Your task to perform on an android device: read, delete, or share a saved page in the chrome app Image 0: 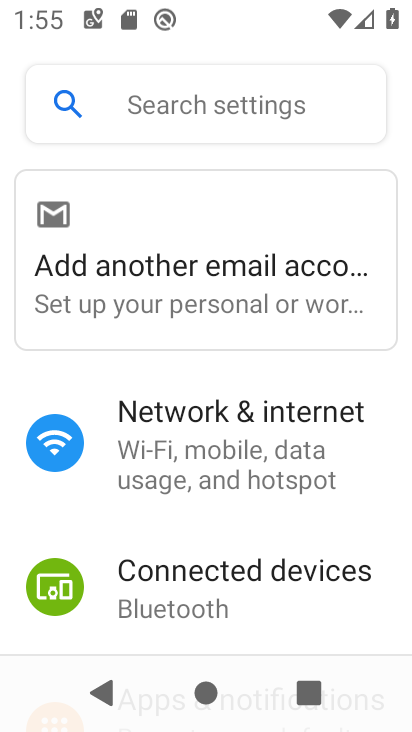
Step 0: press home button
Your task to perform on an android device: read, delete, or share a saved page in the chrome app Image 1: 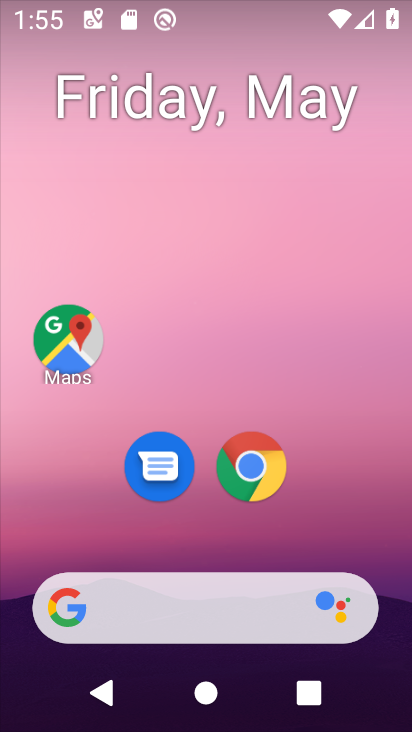
Step 1: drag from (327, 479) to (350, 2)
Your task to perform on an android device: read, delete, or share a saved page in the chrome app Image 2: 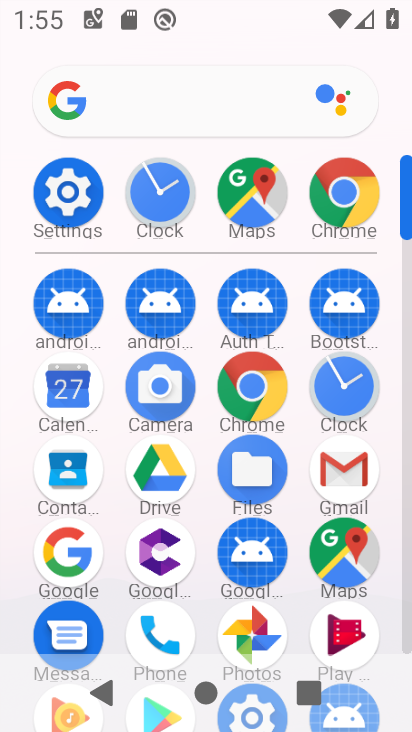
Step 2: click (349, 201)
Your task to perform on an android device: read, delete, or share a saved page in the chrome app Image 3: 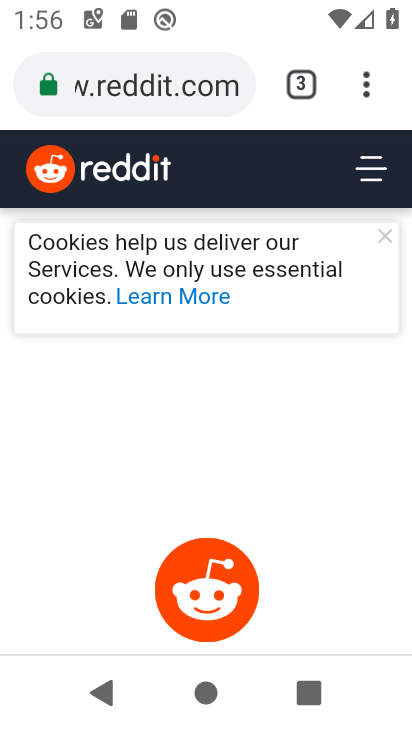
Step 3: drag from (371, 91) to (140, 475)
Your task to perform on an android device: read, delete, or share a saved page in the chrome app Image 4: 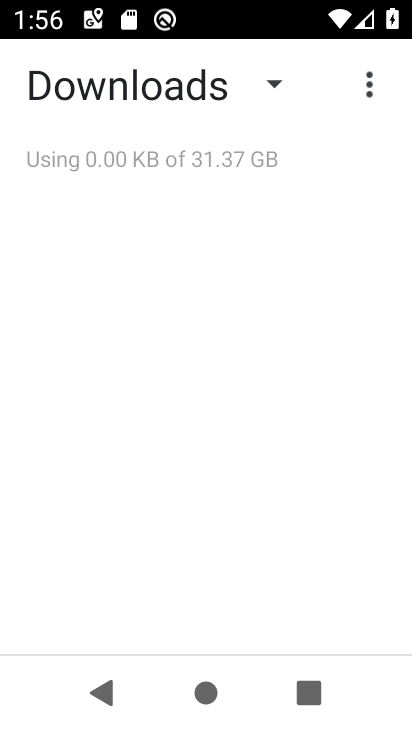
Step 4: drag from (210, 513) to (262, 191)
Your task to perform on an android device: read, delete, or share a saved page in the chrome app Image 5: 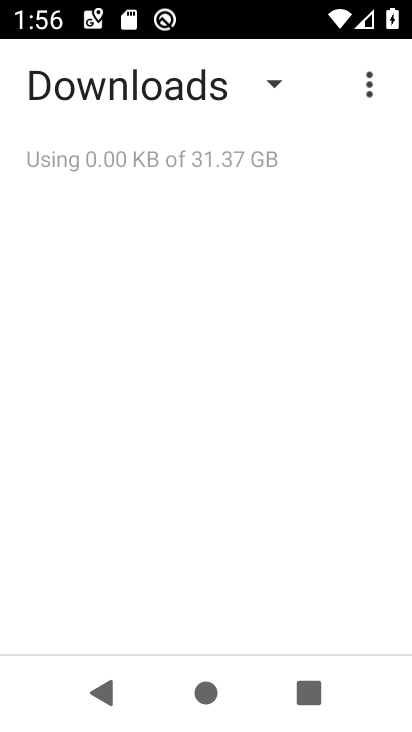
Step 5: click (266, 97)
Your task to perform on an android device: read, delete, or share a saved page in the chrome app Image 6: 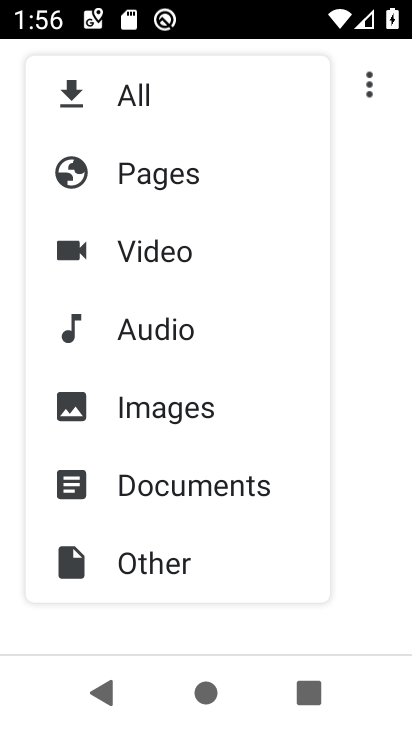
Step 6: click (361, 299)
Your task to perform on an android device: read, delete, or share a saved page in the chrome app Image 7: 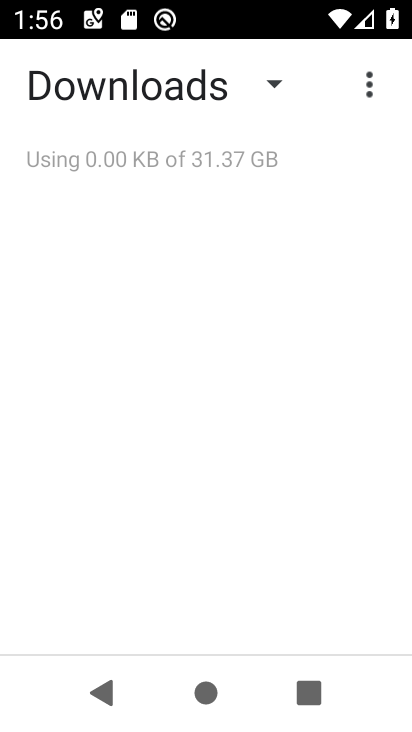
Step 7: task complete